Your task to perform on an android device: Open Google Maps Image 0: 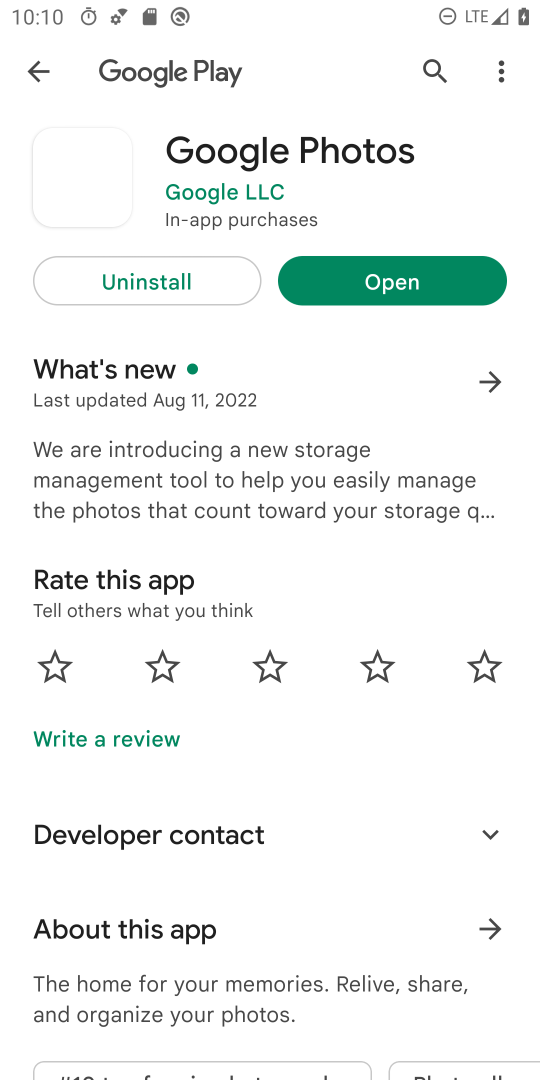
Step 0: press home button
Your task to perform on an android device: Open Google Maps Image 1: 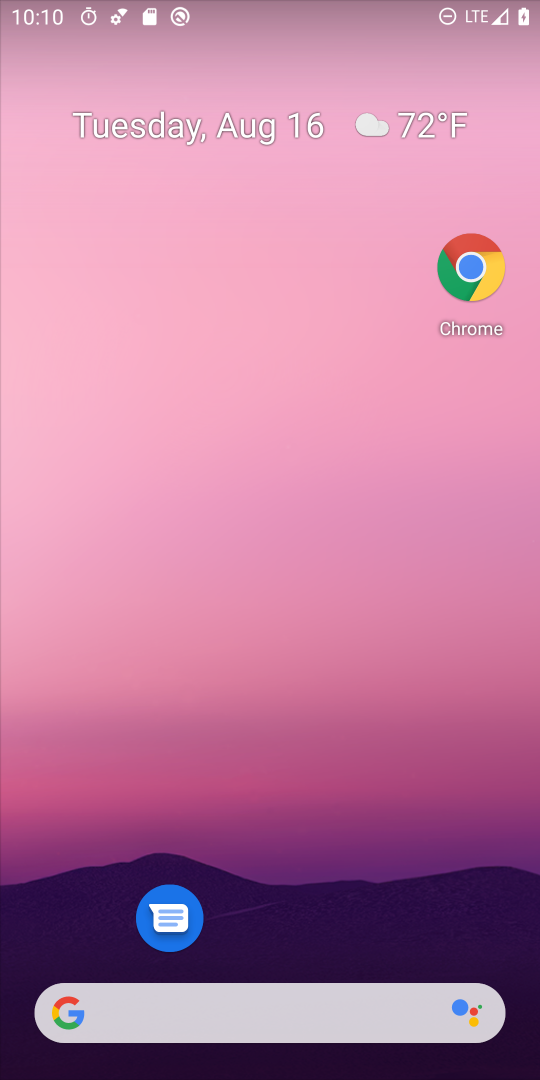
Step 1: drag from (256, 935) to (257, 132)
Your task to perform on an android device: Open Google Maps Image 2: 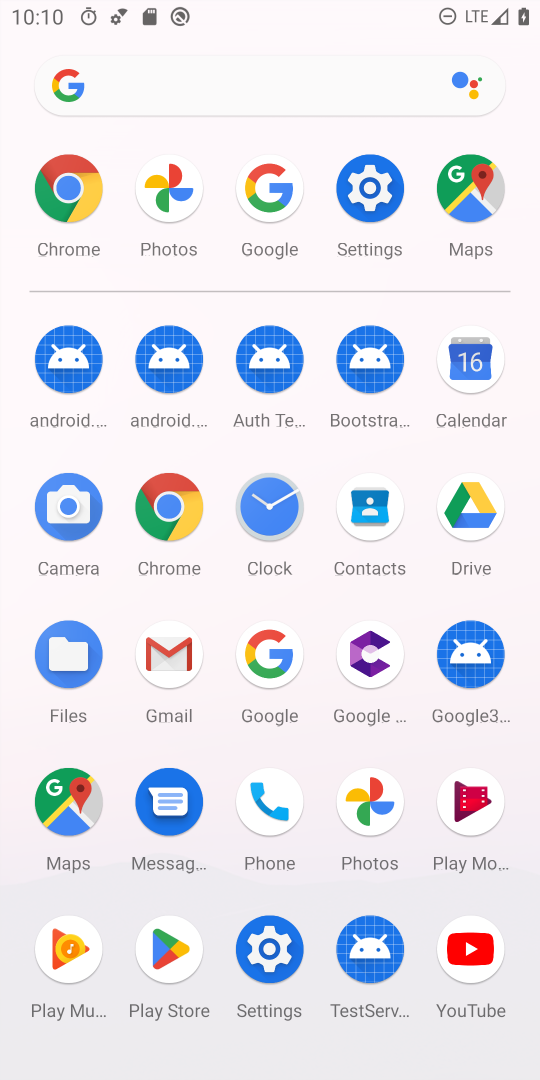
Step 2: click (94, 824)
Your task to perform on an android device: Open Google Maps Image 3: 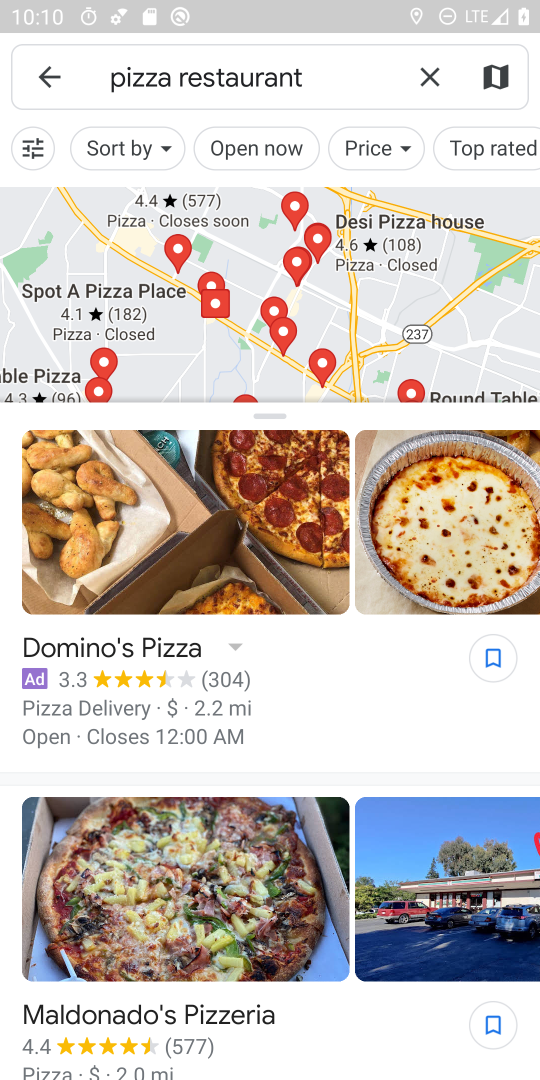
Step 3: click (59, 80)
Your task to perform on an android device: Open Google Maps Image 4: 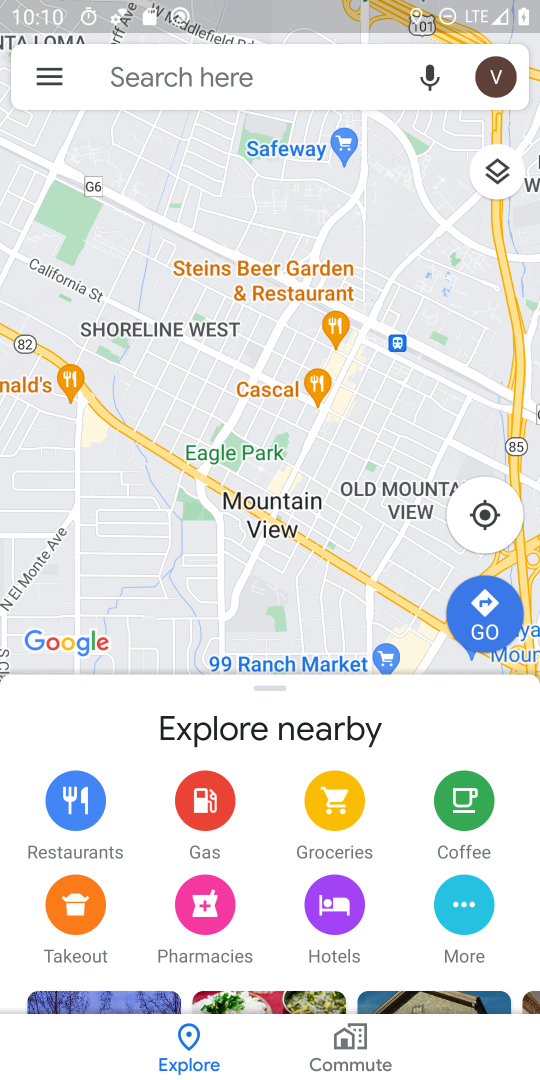
Step 4: task complete